Your task to perform on an android device: Open Google Chrome and open the bookmarks view Image 0: 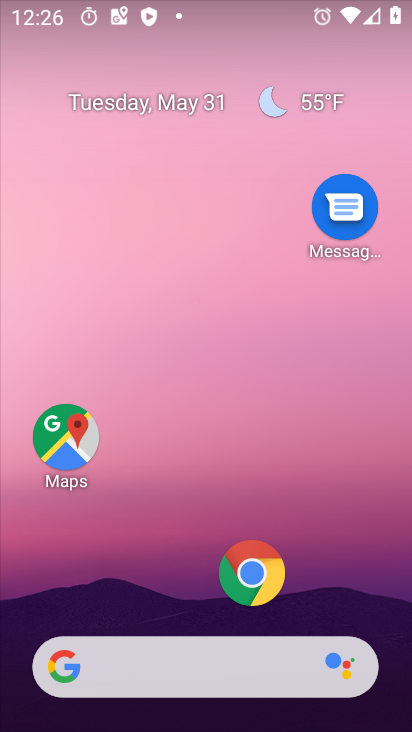
Step 0: click (247, 572)
Your task to perform on an android device: Open Google Chrome and open the bookmarks view Image 1: 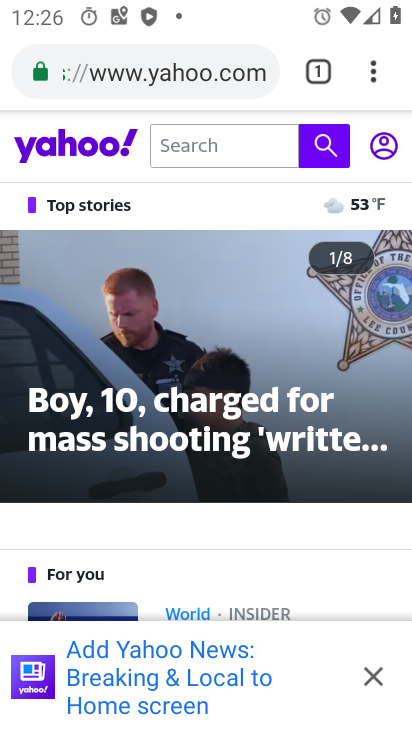
Step 1: click (375, 68)
Your task to perform on an android device: Open Google Chrome and open the bookmarks view Image 2: 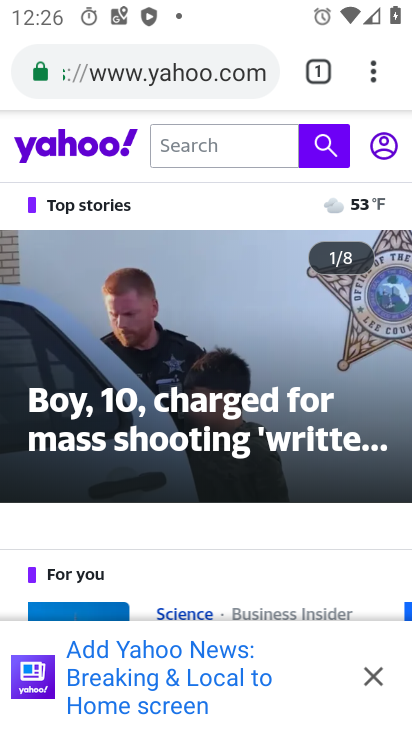
Step 2: click (373, 79)
Your task to perform on an android device: Open Google Chrome and open the bookmarks view Image 3: 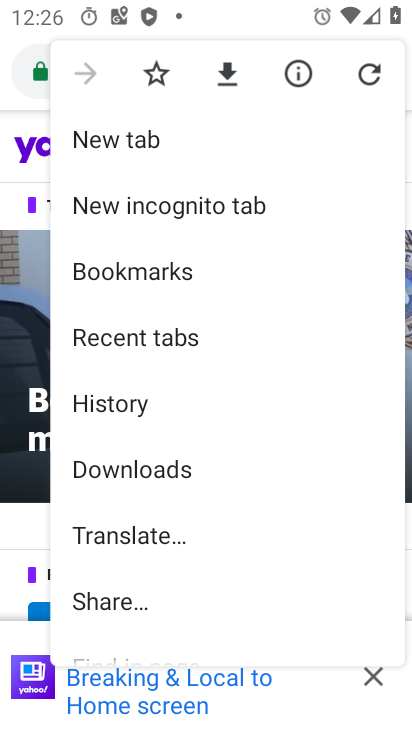
Step 3: click (116, 285)
Your task to perform on an android device: Open Google Chrome and open the bookmarks view Image 4: 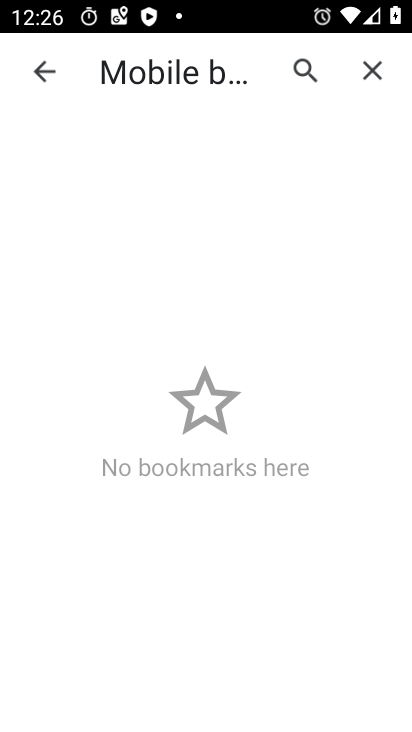
Step 4: task complete